Your task to perform on an android device: Open the calendar and show me this week's events Image 0: 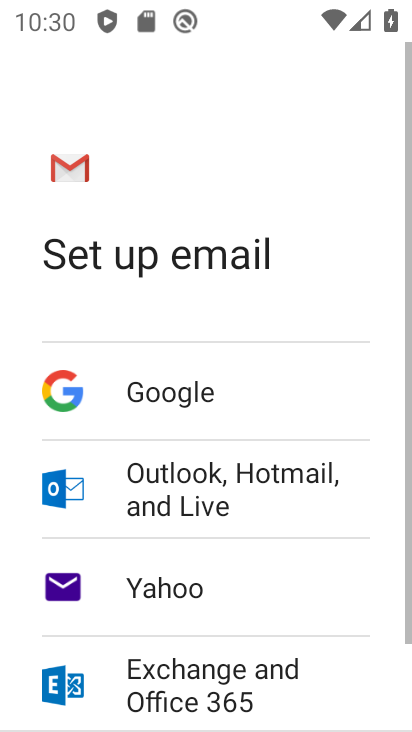
Step 0: press home button
Your task to perform on an android device: Open the calendar and show me this week's events Image 1: 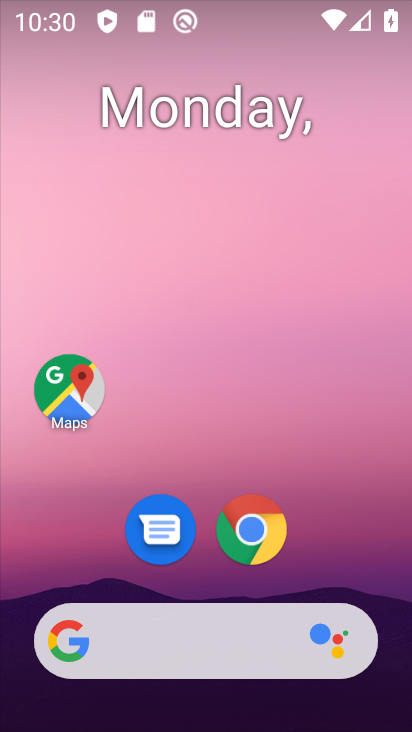
Step 1: drag from (221, 700) to (202, 129)
Your task to perform on an android device: Open the calendar and show me this week's events Image 2: 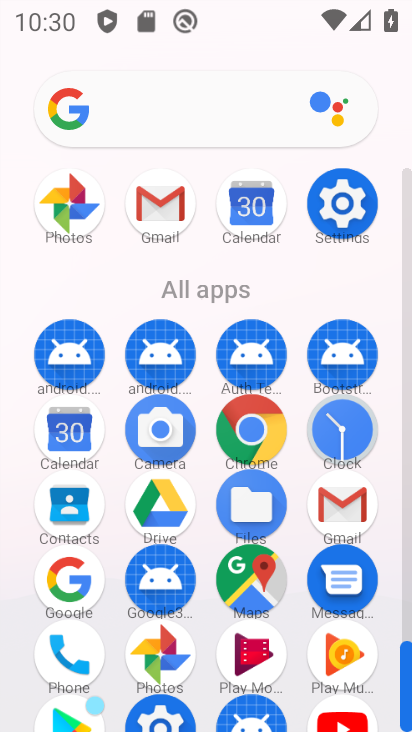
Step 2: click (74, 426)
Your task to perform on an android device: Open the calendar and show me this week's events Image 3: 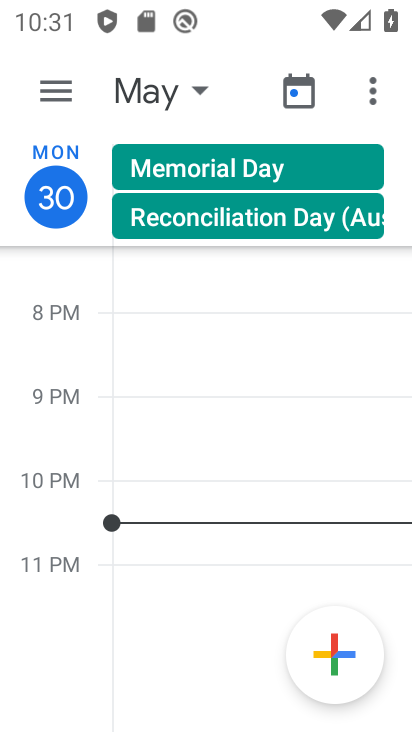
Step 3: click (62, 87)
Your task to perform on an android device: Open the calendar and show me this week's events Image 4: 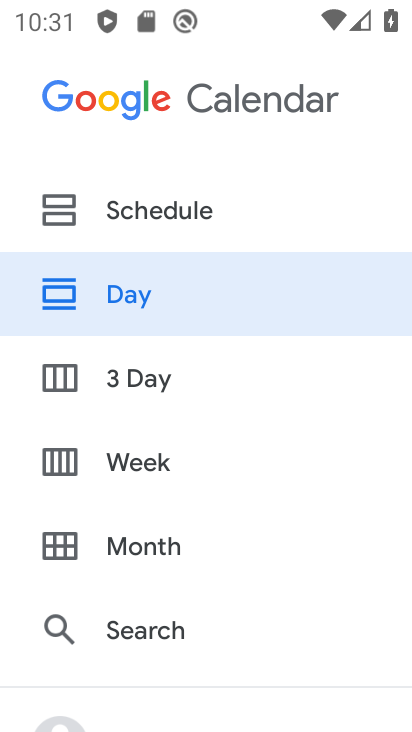
Step 4: drag from (195, 709) to (193, 289)
Your task to perform on an android device: Open the calendar and show me this week's events Image 5: 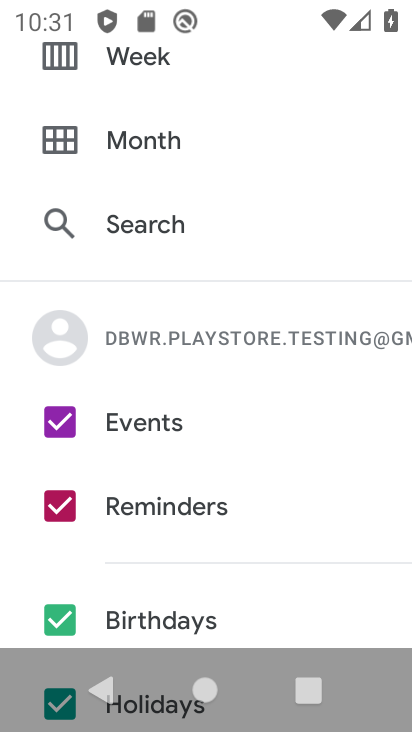
Step 5: drag from (282, 617) to (282, 553)
Your task to perform on an android device: Open the calendar and show me this week's events Image 6: 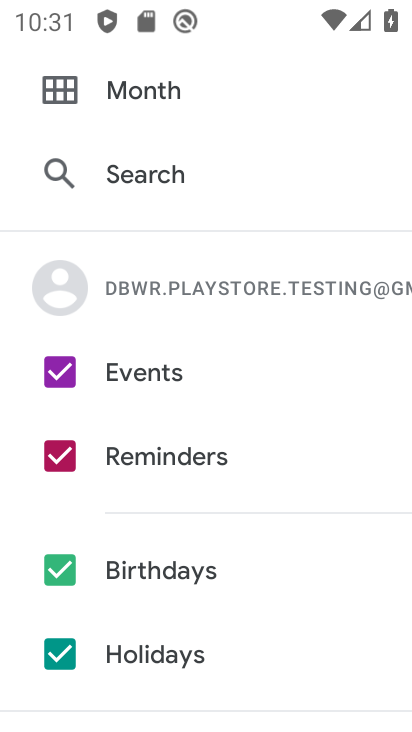
Step 6: drag from (281, 465) to (280, 335)
Your task to perform on an android device: Open the calendar and show me this week's events Image 7: 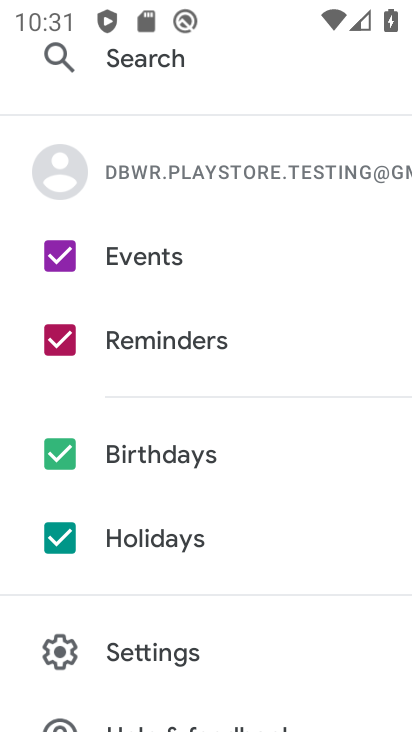
Step 7: click (58, 534)
Your task to perform on an android device: Open the calendar and show me this week's events Image 8: 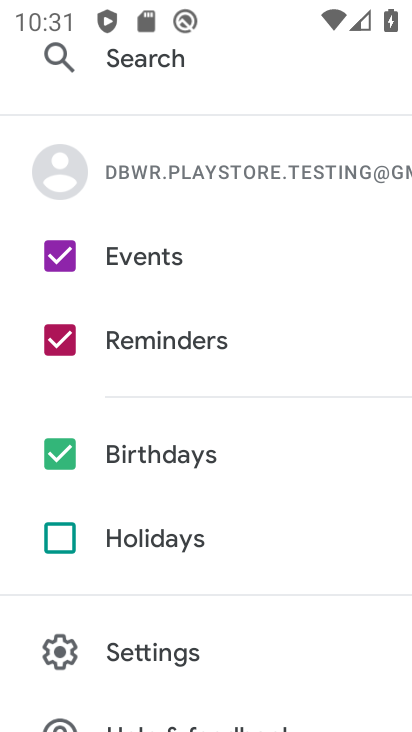
Step 8: click (52, 453)
Your task to perform on an android device: Open the calendar and show me this week's events Image 9: 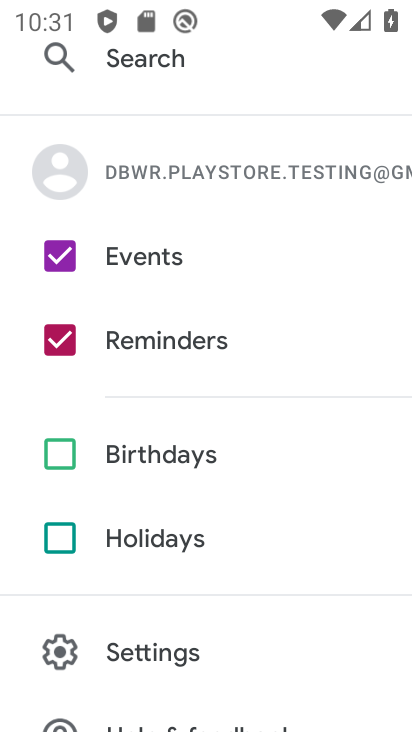
Step 9: click (65, 336)
Your task to perform on an android device: Open the calendar and show me this week's events Image 10: 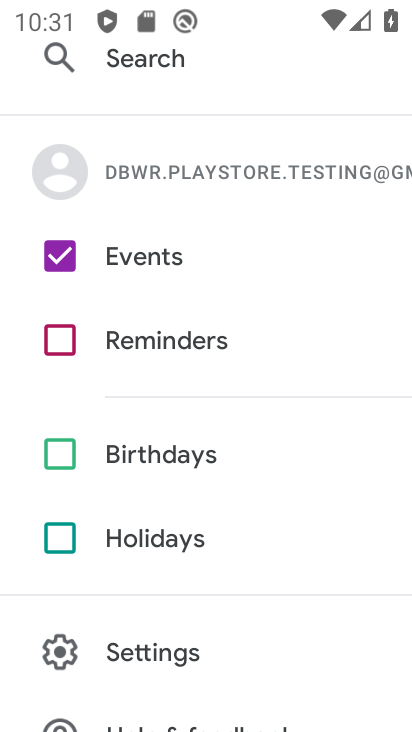
Step 10: drag from (307, 119) to (300, 557)
Your task to perform on an android device: Open the calendar and show me this week's events Image 11: 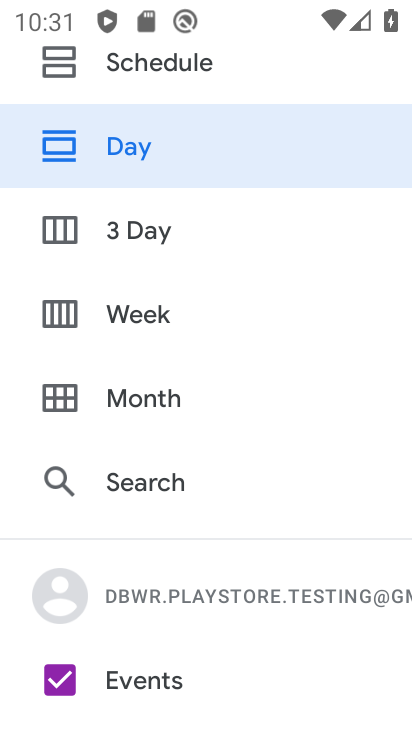
Step 11: click (147, 313)
Your task to perform on an android device: Open the calendar and show me this week's events Image 12: 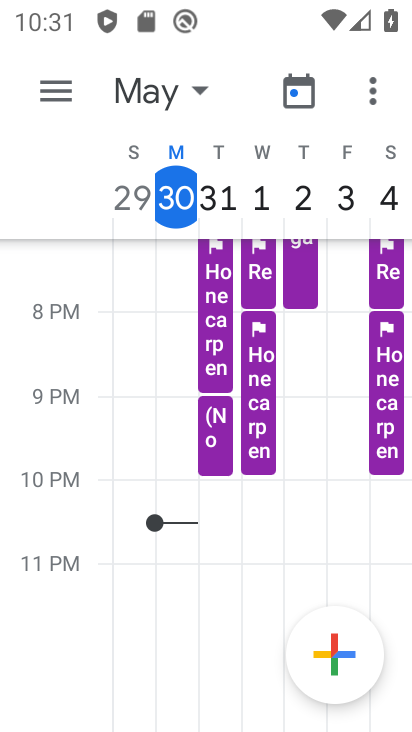
Step 12: task complete